Your task to perform on an android device: toggle improve location accuracy Image 0: 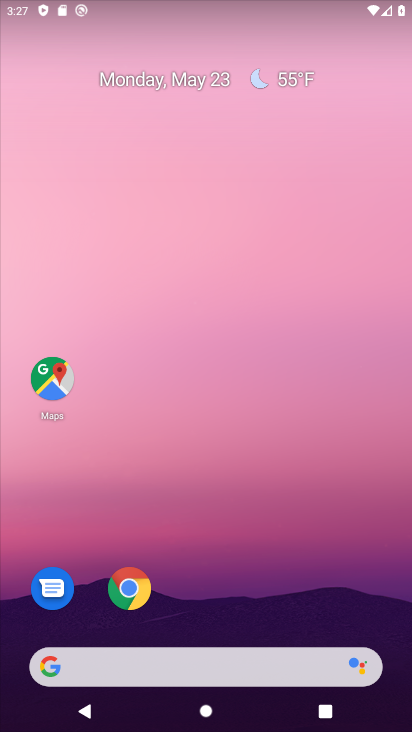
Step 0: drag from (220, 552) to (235, 81)
Your task to perform on an android device: toggle improve location accuracy Image 1: 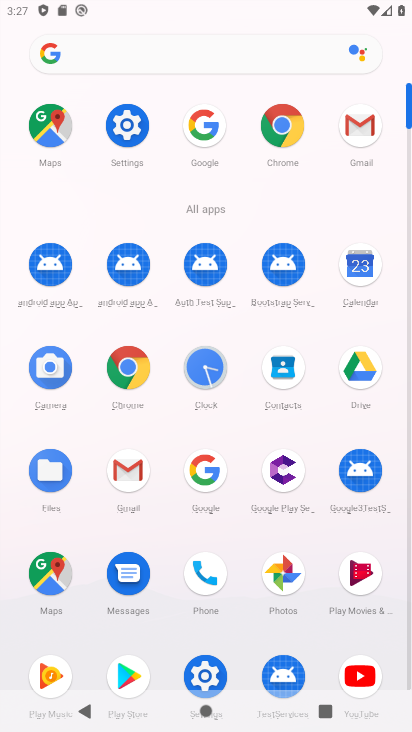
Step 1: click (130, 119)
Your task to perform on an android device: toggle improve location accuracy Image 2: 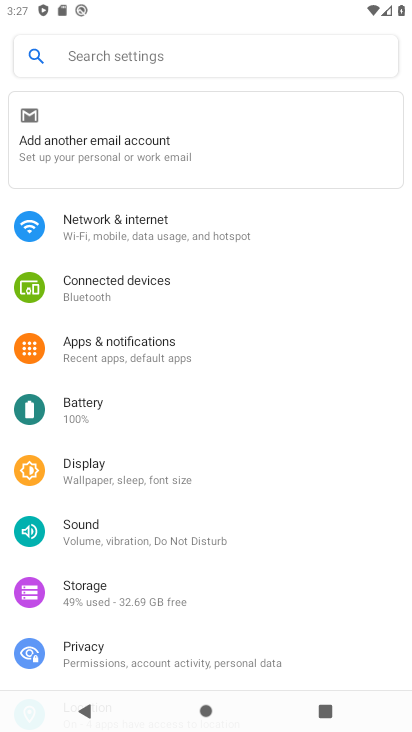
Step 2: drag from (148, 617) to (227, 209)
Your task to perform on an android device: toggle improve location accuracy Image 3: 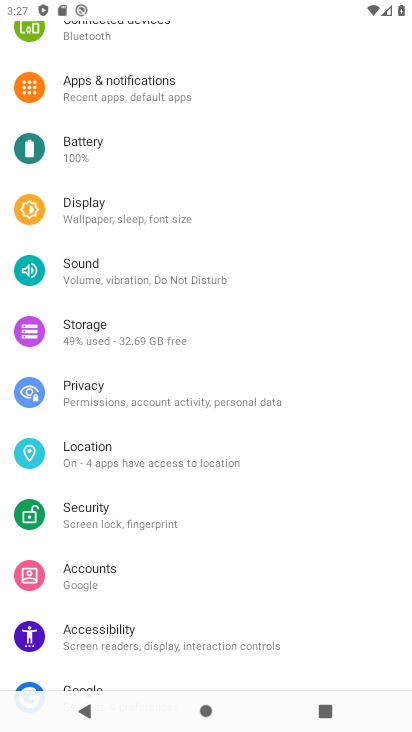
Step 3: click (131, 456)
Your task to perform on an android device: toggle improve location accuracy Image 4: 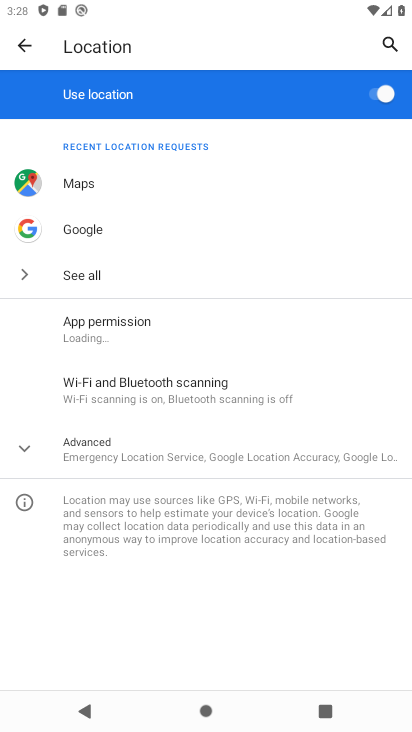
Step 4: click (104, 447)
Your task to perform on an android device: toggle improve location accuracy Image 5: 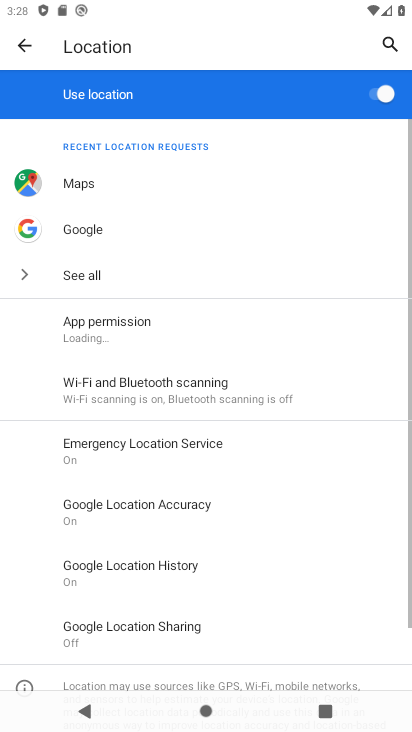
Step 5: drag from (245, 557) to (256, 314)
Your task to perform on an android device: toggle improve location accuracy Image 6: 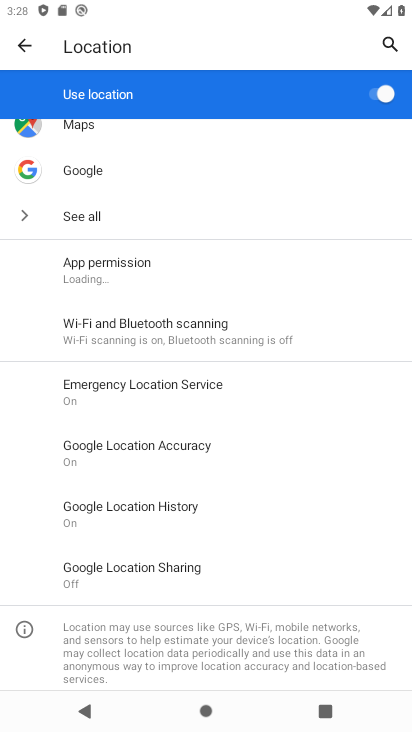
Step 6: click (101, 434)
Your task to perform on an android device: toggle improve location accuracy Image 7: 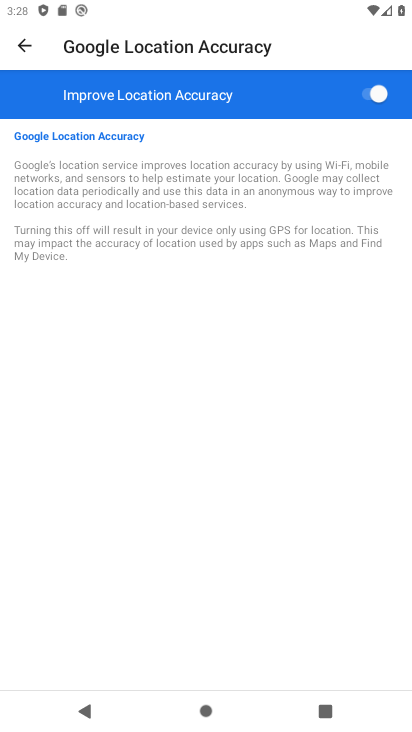
Step 7: click (380, 89)
Your task to perform on an android device: toggle improve location accuracy Image 8: 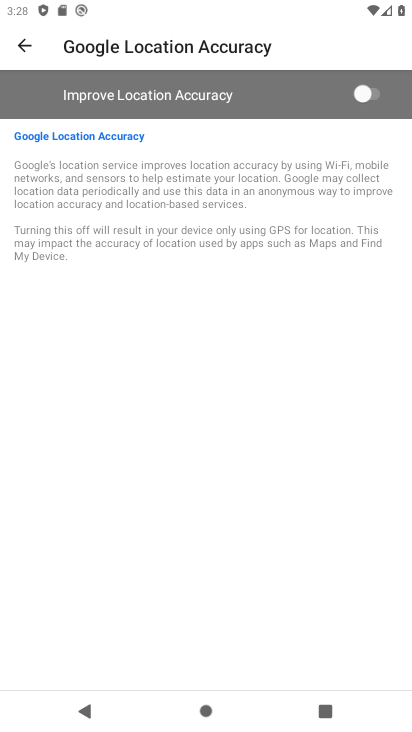
Step 8: task complete